Your task to perform on an android device: turn pop-ups on in chrome Image 0: 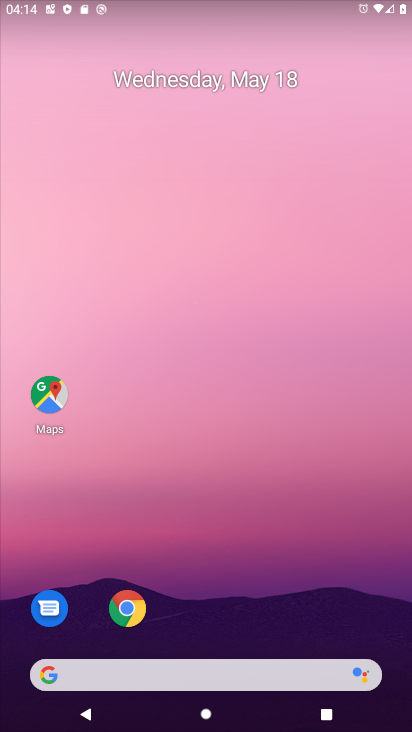
Step 0: click (126, 606)
Your task to perform on an android device: turn pop-ups on in chrome Image 1: 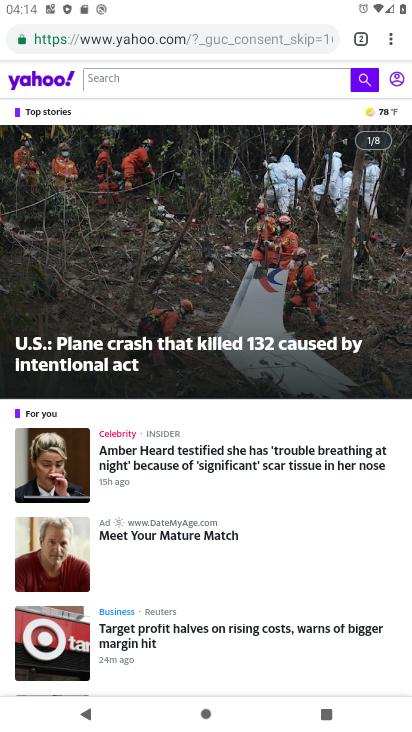
Step 1: click (398, 40)
Your task to perform on an android device: turn pop-ups on in chrome Image 2: 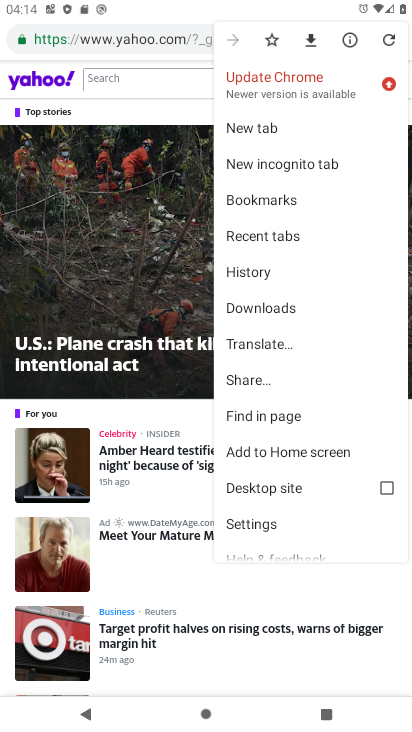
Step 2: click (248, 520)
Your task to perform on an android device: turn pop-ups on in chrome Image 3: 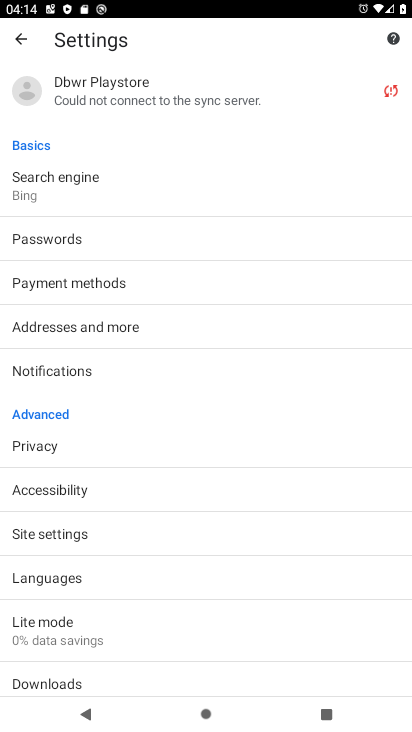
Step 3: drag from (148, 585) to (216, 227)
Your task to perform on an android device: turn pop-ups on in chrome Image 4: 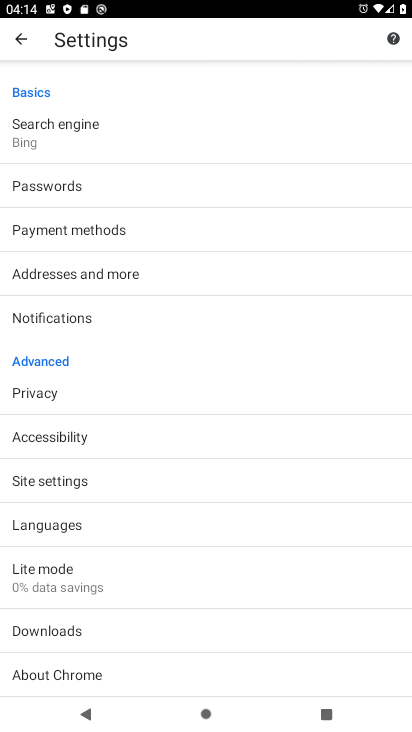
Step 4: drag from (107, 602) to (148, 294)
Your task to perform on an android device: turn pop-ups on in chrome Image 5: 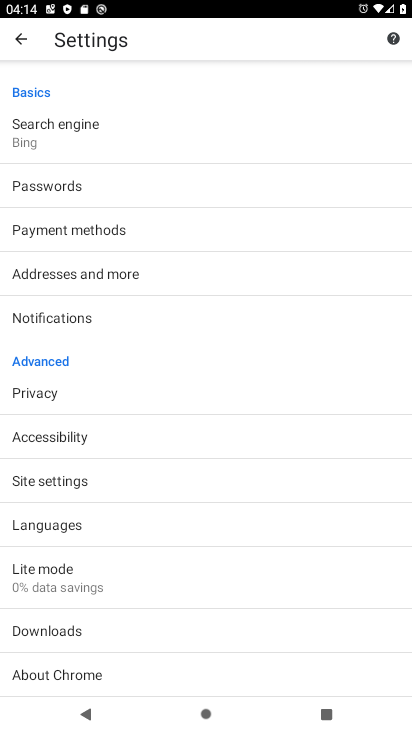
Step 5: click (115, 480)
Your task to perform on an android device: turn pop-ups on in chrome Image 6: 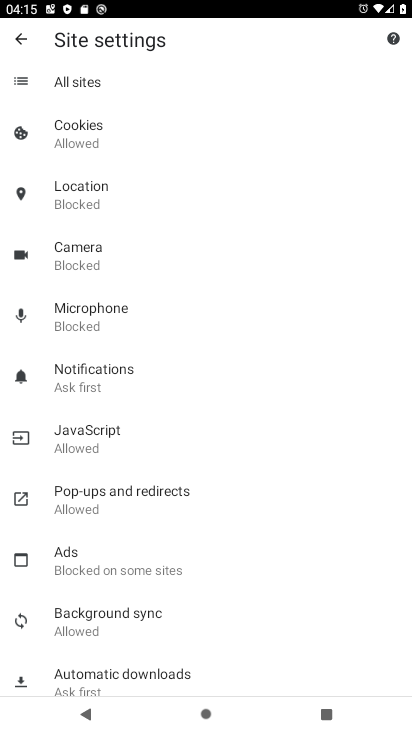
Step 6: click (123, 488)
Your task to perform on an android device: turn pop-ups on in chrome Image 7: 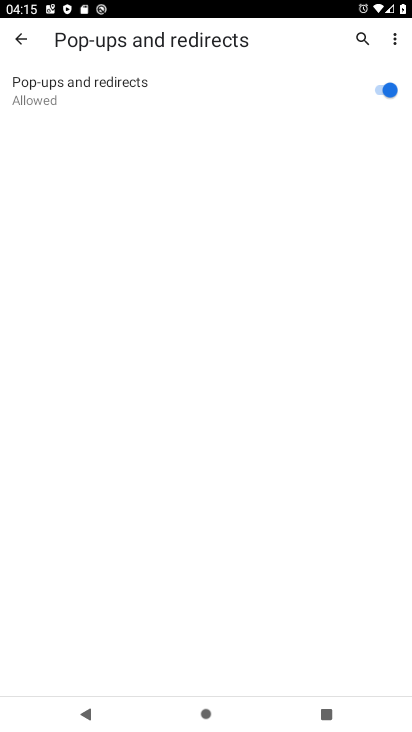
Step 7: task complete